Your task to perform on an android device: open the mobile data screen to see how much data has been used Image 0: 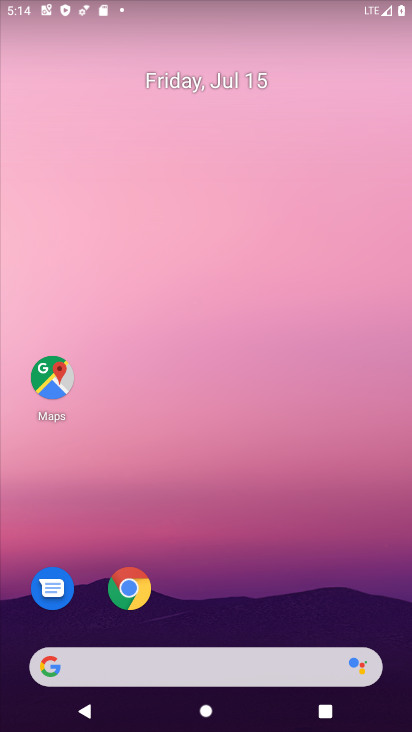
Step 0: drag from (267, 669) to (223, 27)
Your task to perform on an android device: open the mobile data screen to see how much data has been used Image 1: 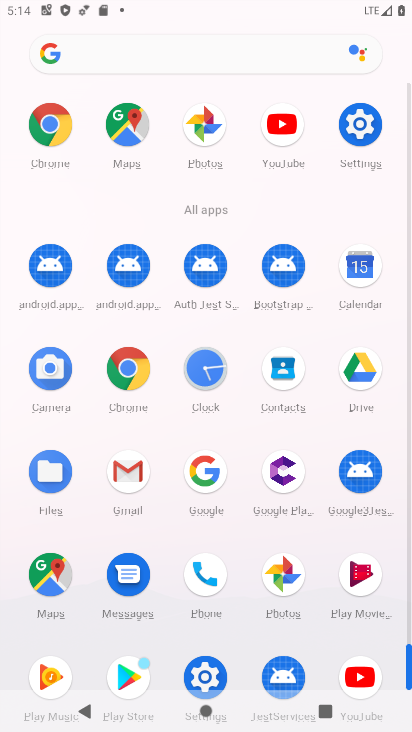
Step 1: click (366, 133)
Your task to perform on an android device: open the mobile data screen to see how much data has been used Image 2: 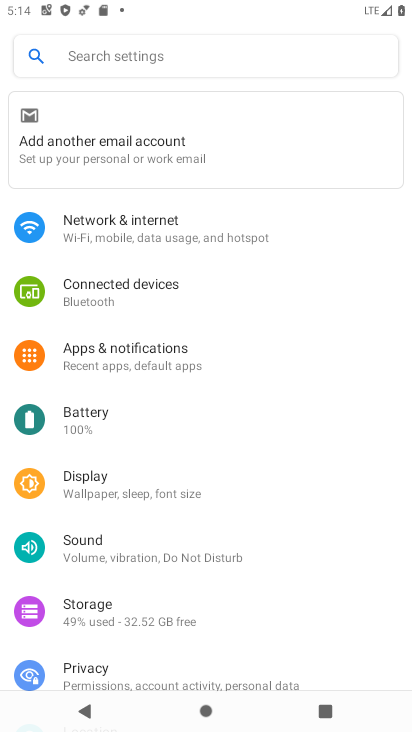
Step 2: click (172, 234)
Your task to perform on an android device: open the mobile data screen to see how much data has been used Image 3: 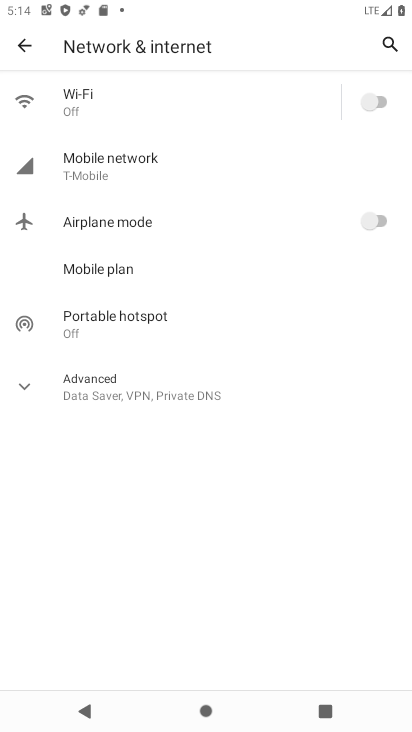
Step 3: click (106, 168)
Your task to perform on an android device: open the mobile data screen to see how much data has been used Image 4: 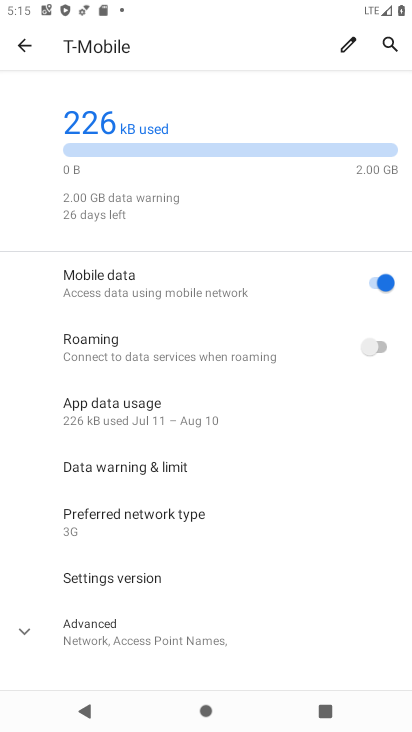
Step 4: task complete